Your task to perform on an android device: open the mobile data screen to see how much data has been used Image 0: 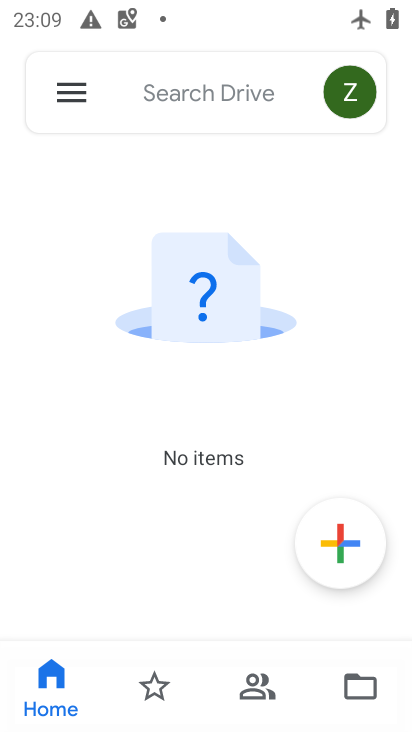
Step 0: press back button
Your task to perform on an android device: open the mobile data screen to see how much data has been used Image 1: 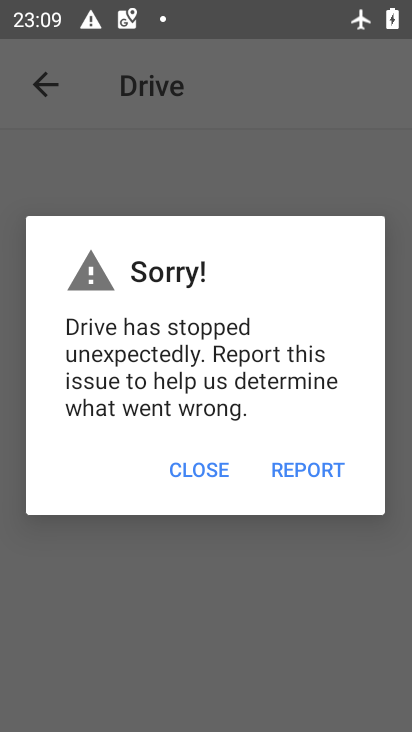
Step 1: click (164, 468)
Your task to perform on an android device: open the mobile data screen to see how much data has been used Image 2: 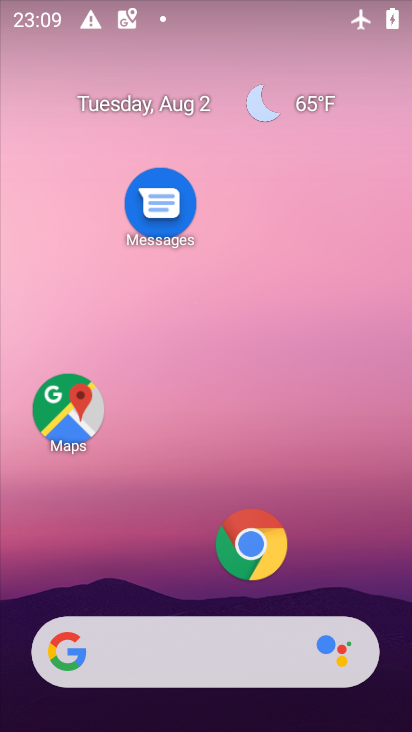
Step 2: drag from (167, 568) to (159, 202)
Your task to perform on an android device: open the mobile data screen to see how much data has been used Image 3: 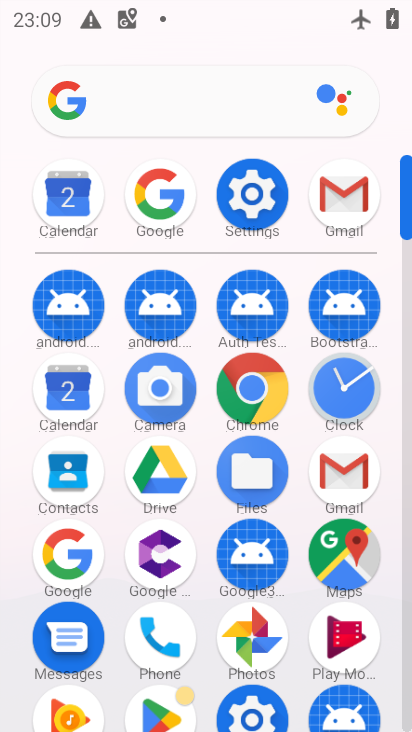
Step 3: click (260, 219)
Your task to perform on an android device: open the mobile data screen to see how much data has been used Image 4: 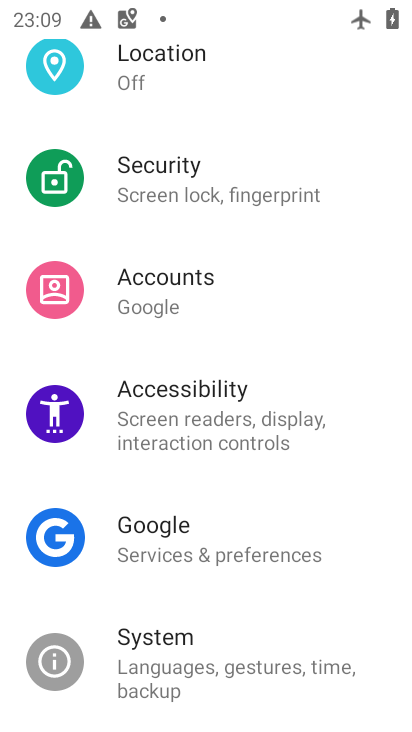
Step 4: drag from (242, 175) to (271, 520)
Your task to perform on an android device: open the mobile data screen to see how much data has been used Image 5: 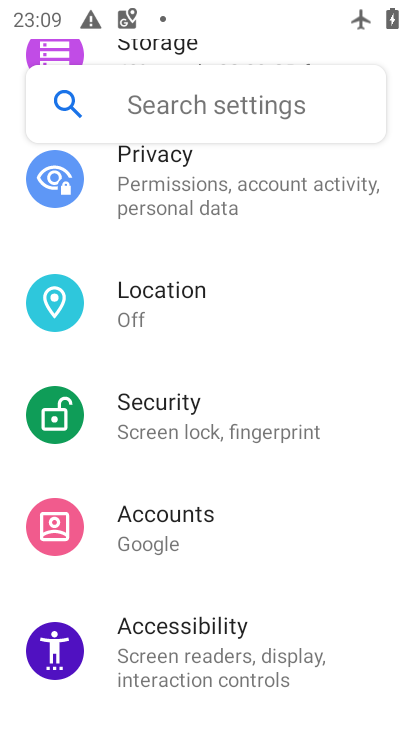
Step 5: drag from (283, 378) to (283, 555)
Your task to perform on an android device: open the mobile data screen to see how much data has been used Image 6: 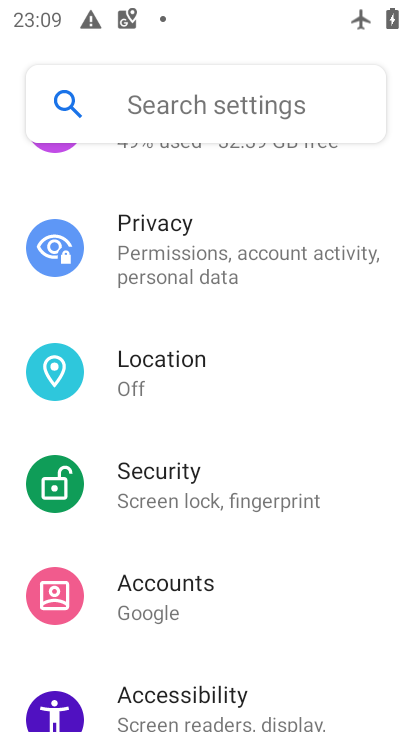
Step 6: drag from (217, 264) to (217, 625)
Your task to perform on an android device: open the mobile data screen to see how much data has been used Image 7: 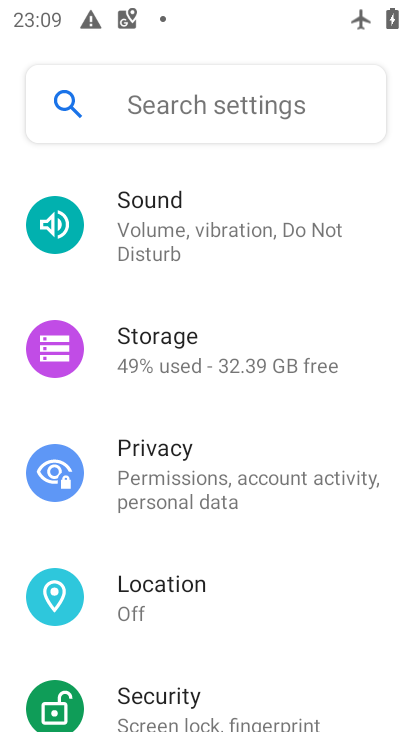
Step 7: drag from (172, 234) to (191, 683)
Your task to perform on an android device: open the mobile data screen to see how much data has been used Image 8: 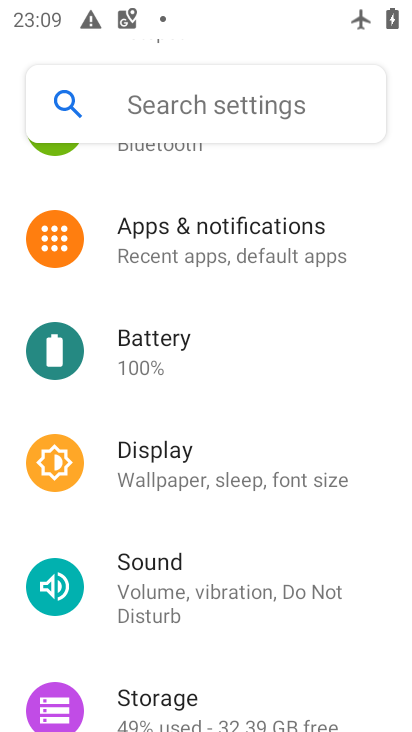
Step 8: drag from (206, 220) to (221, 628)
Your task to perform on an android device: open the mobile data screen to see how much data has been used Image 9: 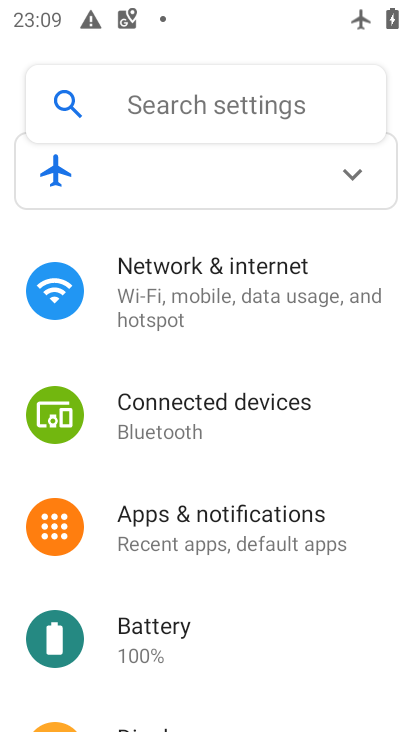
Step 9: click (200, 334)
Your task to perform on an android device: open the mobile data screen to see how much data has been used Image 10: 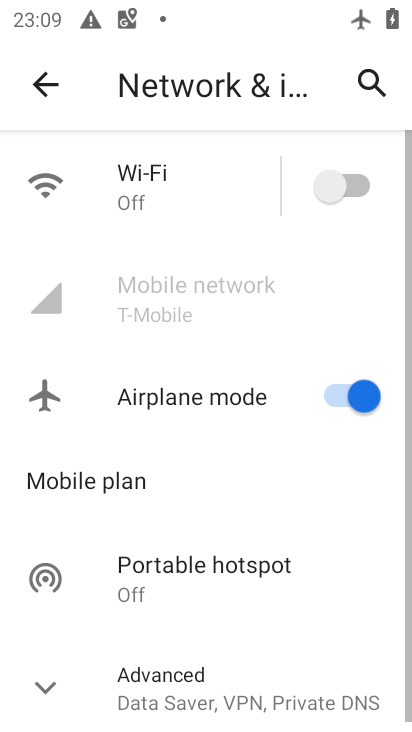
Step 10: click (192, 321)
Your task to perform on an android device: open the mobile data screen to see how much data has been used Image 11: 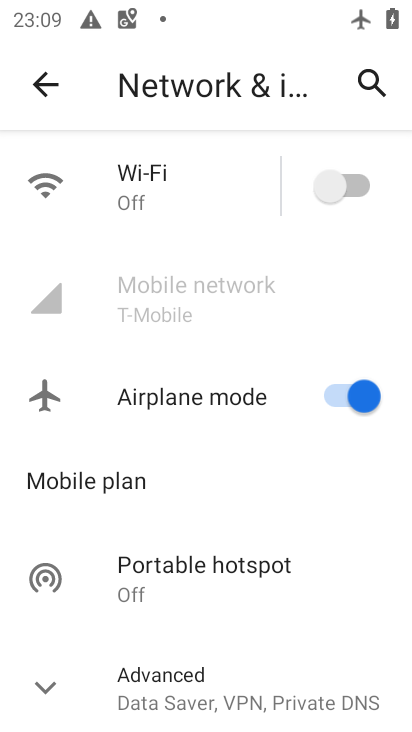
Step 11: task complete